Your task to perform on an android device: toggle improve location accuracy Image 0: 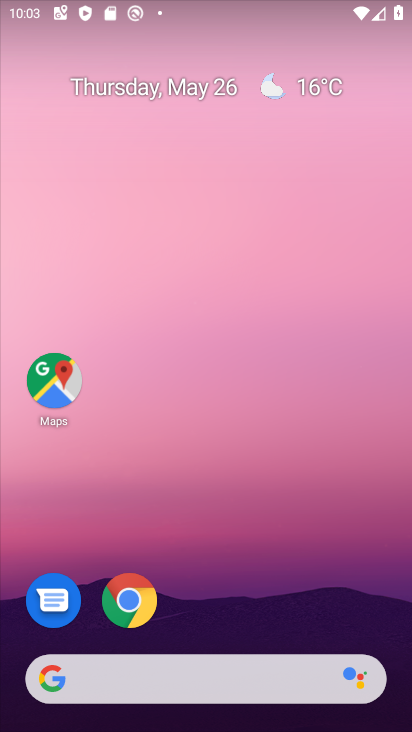
Step 0: drag from (218, 607) to (257, 117)
Your task to perform on an android device: toggle improve location accuracy Image 1: 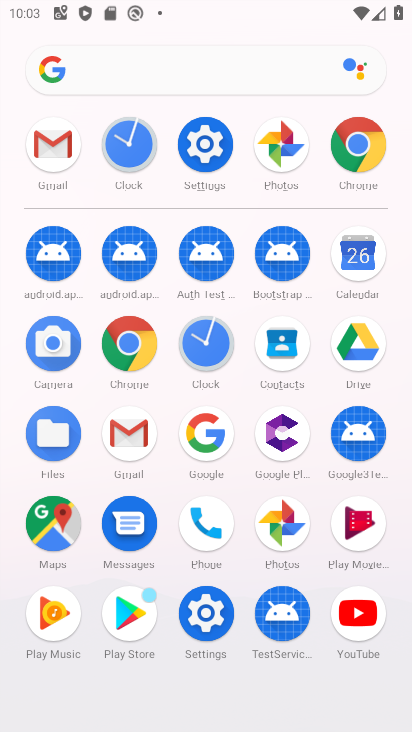
Step 1: click (207, 145)
Your task to perform on an android device: toggle improve location accuracy Image 2: 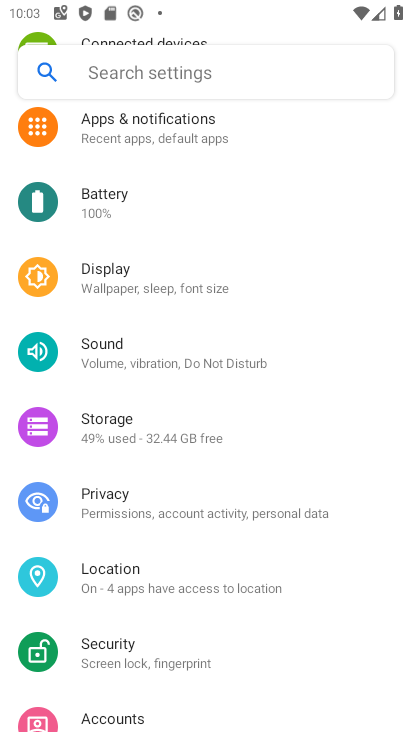
Step 2: click (121, 552)
Your task to perform on an android device: toggle improve location accuracy Image 3: 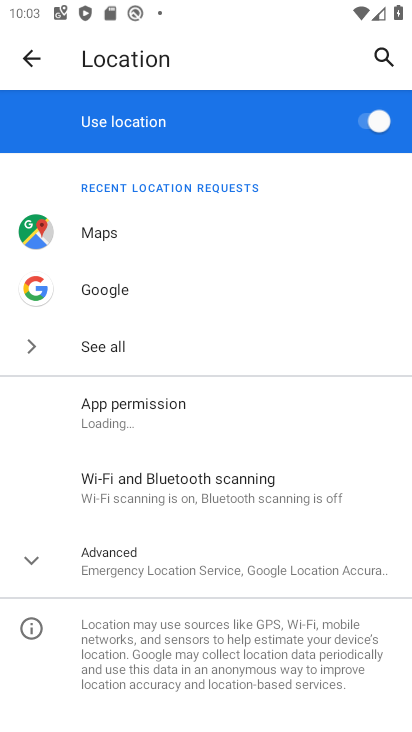
Step 3: click (121, 552)
Your task to perform on an android device: toggle improve location accuracy Image 4: 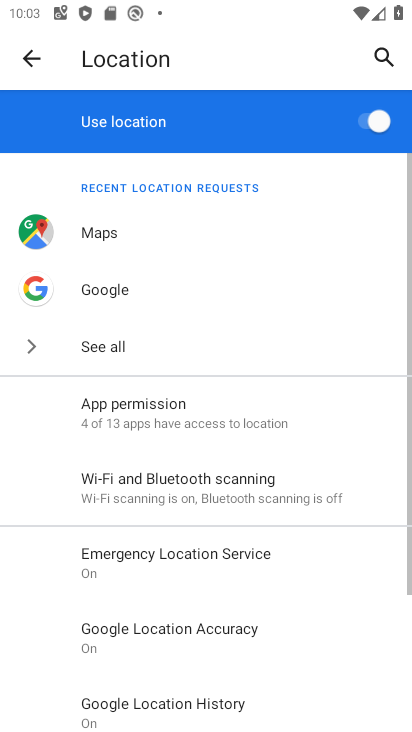
Step 4: drag from (121, 552) to (240, 216)
Your task to perform on an android device: toggle improve location accuracy Image 5: 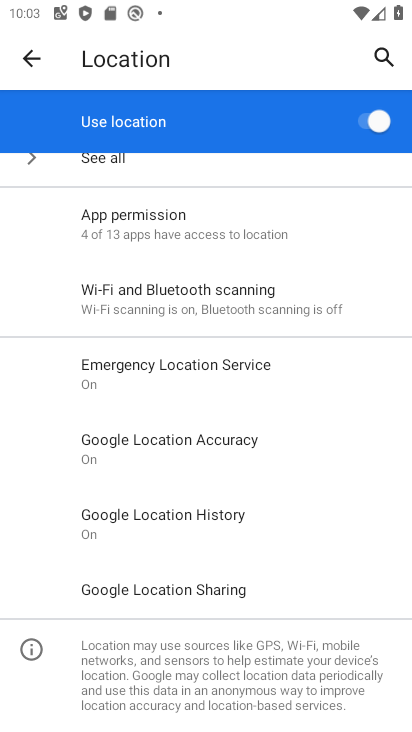
Step 5: click (197, 451)
Your task to perform on an android device: toggle improve location accuracy Image 6: 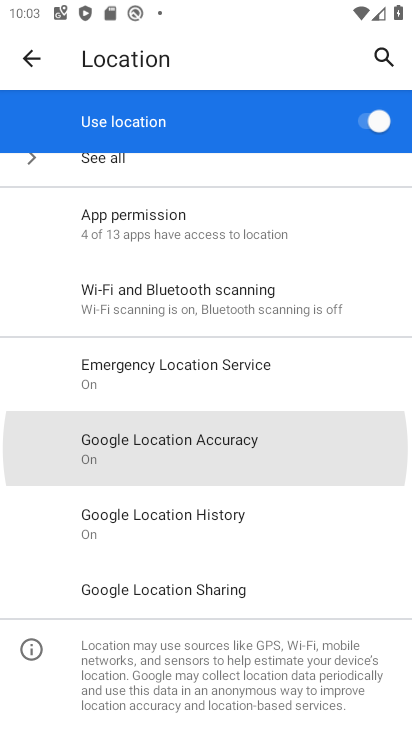
Step 6: click (197, 451)
Your task to perform on an android device: toggle improve location accuracy Image 7: 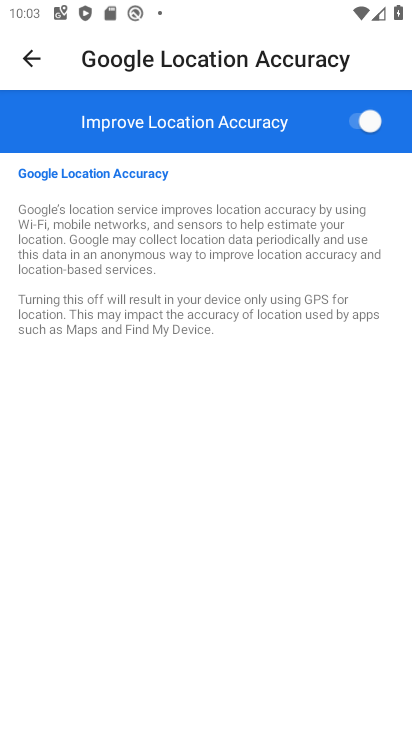
Step 7: task complete